Your task to perform on an android device: Open sound settings Image 0: 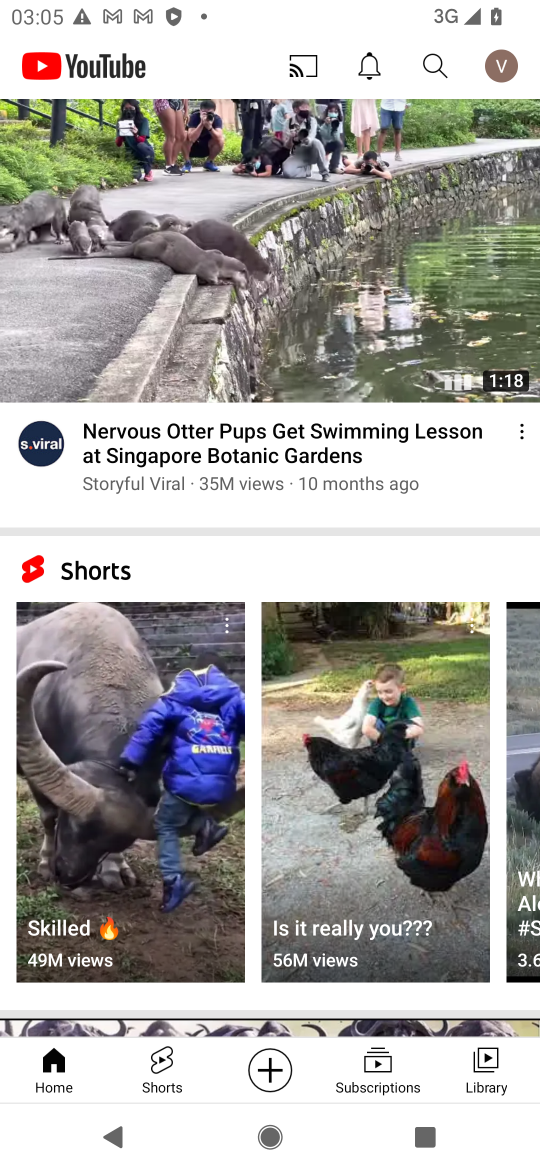
Step 0: press home button
Your task to perform on an android device: Open sound settings Image 1: 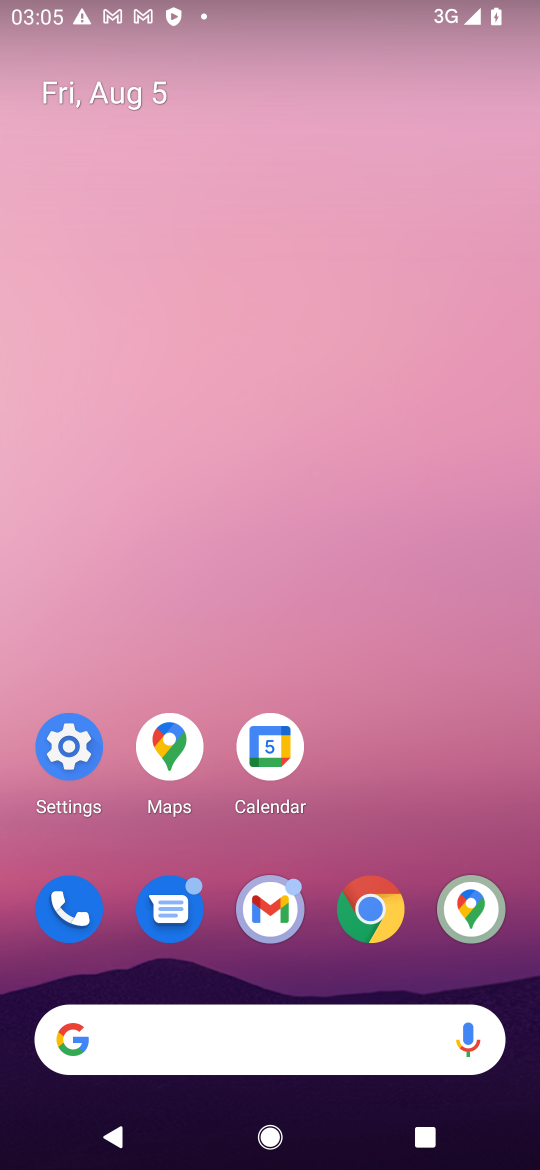
Step 1: click (73, 741)
Your task to perform on an android device: Open sound settings Image 2: 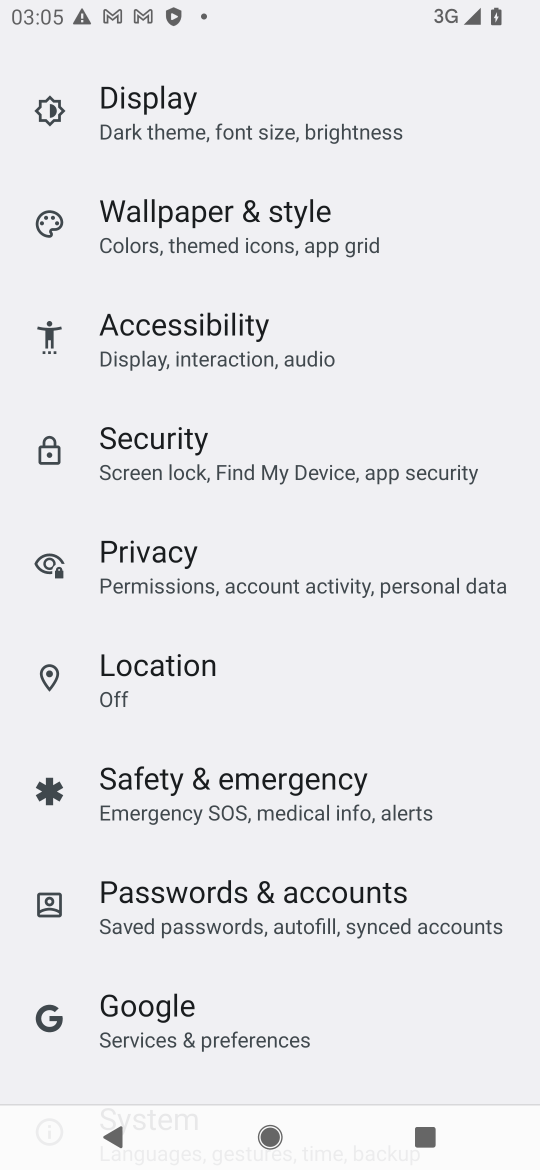
Step 2: drag from (326, 932) to (318, 249)
Your task to perform on an android device: Open sound settings Image 3: 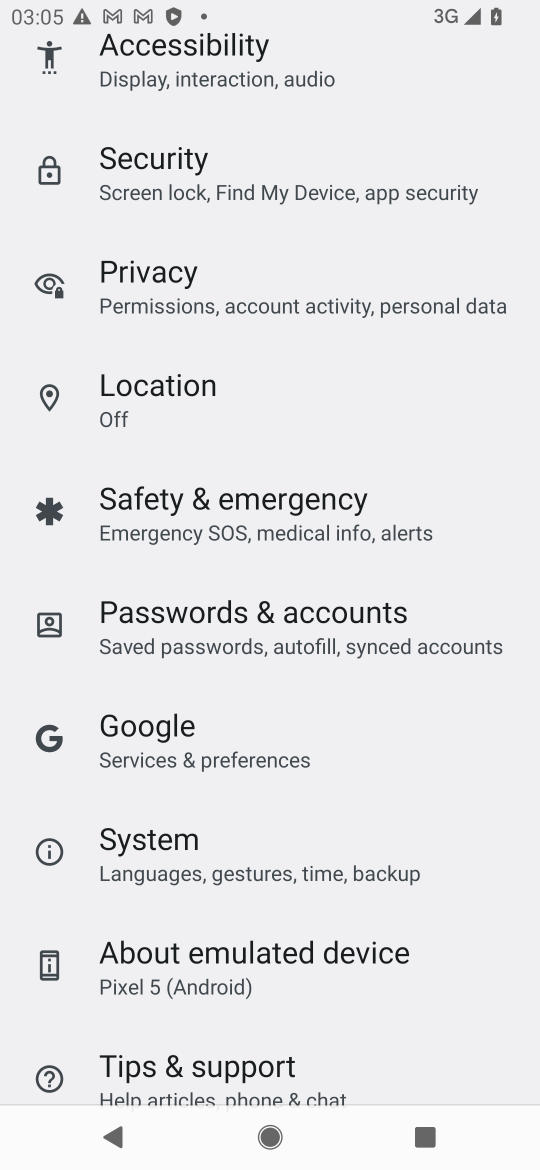
Step 3: drag from (338, 197) to (323, 748)
Your task to perform on an android device: Open sound settings Image 4: 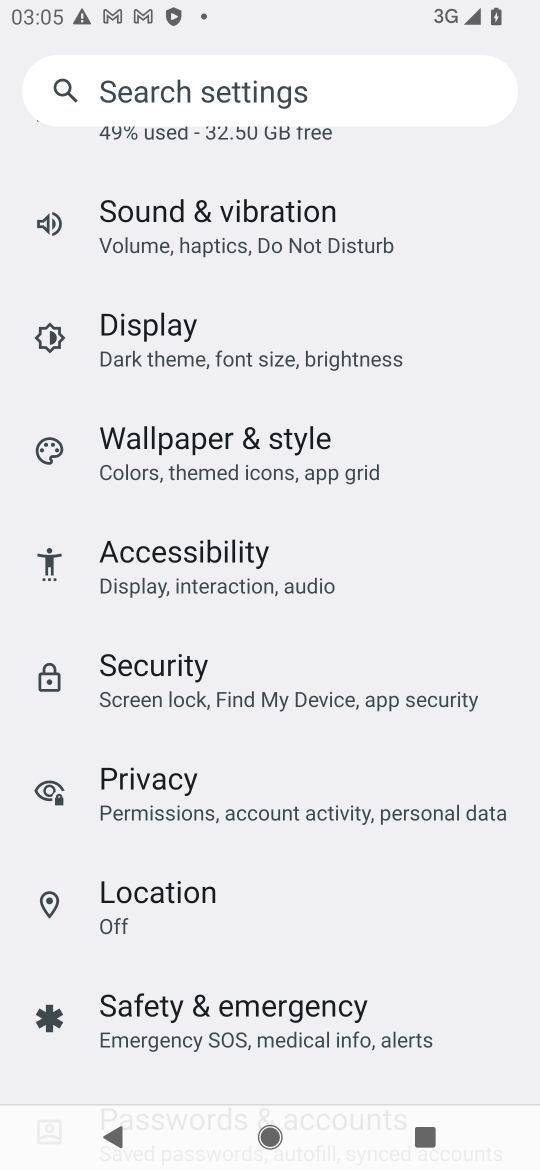
Step 4: click (150, 217)
Your task to perform on an android device: Open sound settings Image 5: 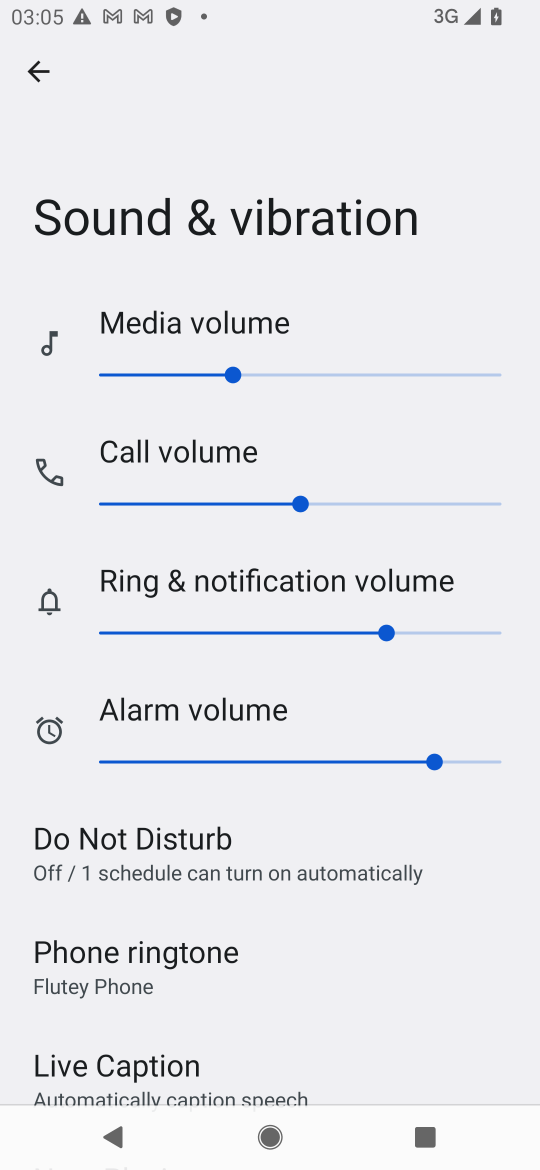
Step 5: task complete